Your task to perform on an android device: Go to battery settings Image 0: 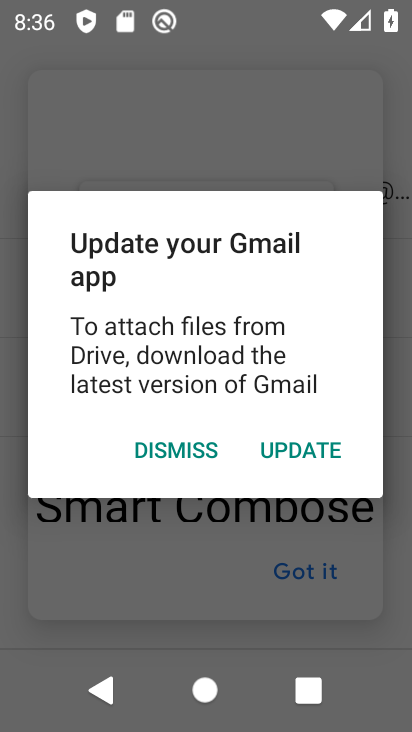
Step 0: press home button
Your task to perform on an android device: Go to battery settings Image 1: 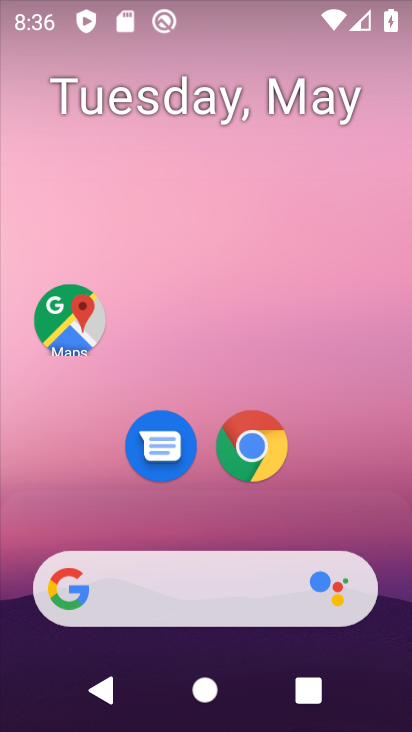
Step 1: drag from (337, 530) to (327, 23)
Your task to perform on an android device: Go to battery settings Image 2: 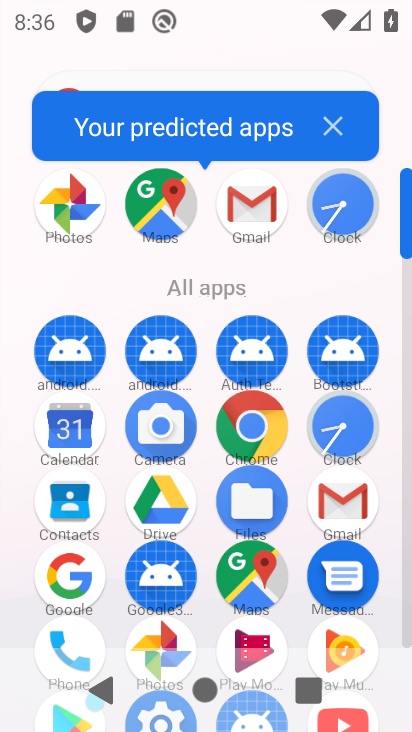
Step 2: drag from (196, 307) to (240, 10)
Your task to perform on an android device: Go to battery settings Image 3: 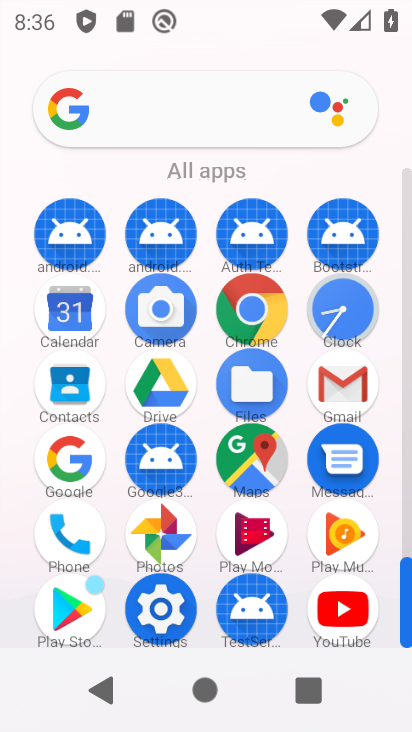
Step 3: click (146, 608)
Your task to perform on an android device: Go to battery settings Image 4: 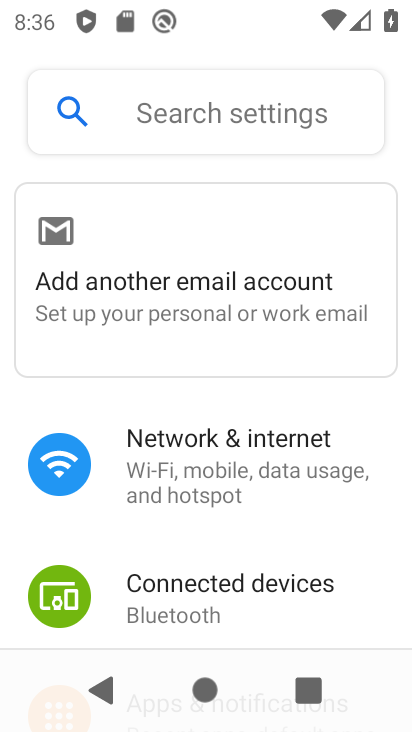
Step 4: drag from (241, 590) to (235, 102)
Your task to perform on an android device: Go to battery settings Image 5: 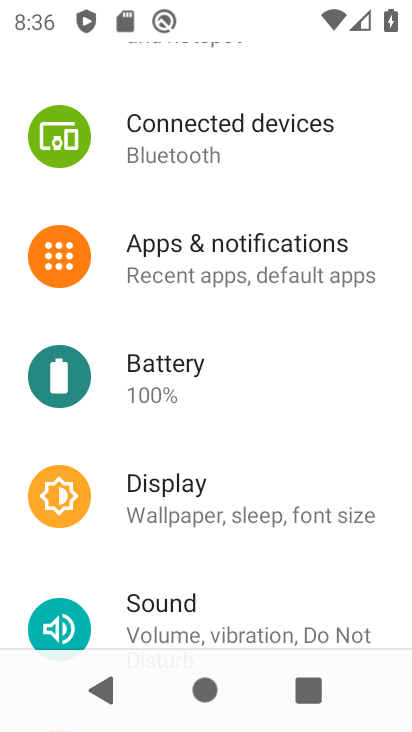
Step 5: click (248, 365)
Your task to perform on an android device: Go to battery settings Image 6: 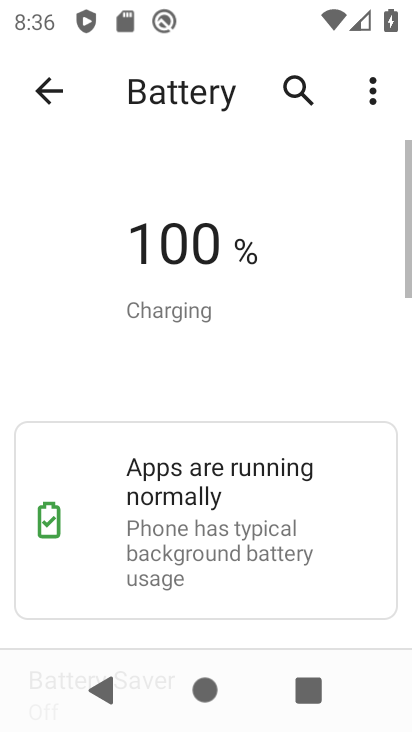
Step 6: task complete